Your task to perform on an android device: Go to Yahoo.com Image 0: 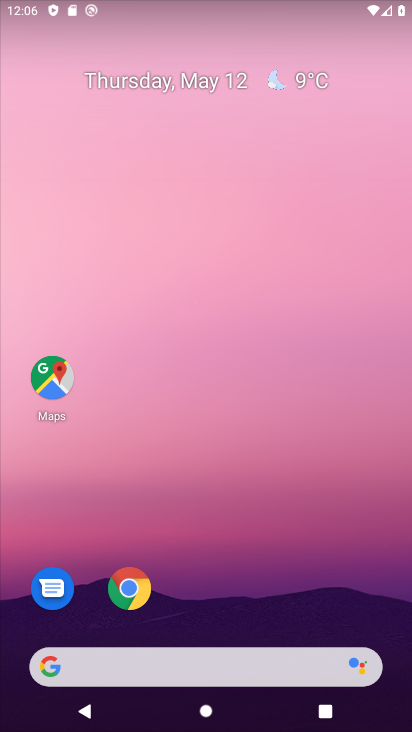
Step 0: drag from (268, 665) to (179, 8)
Your task to perform on an android device: Go to Yahoo.com Image 1: 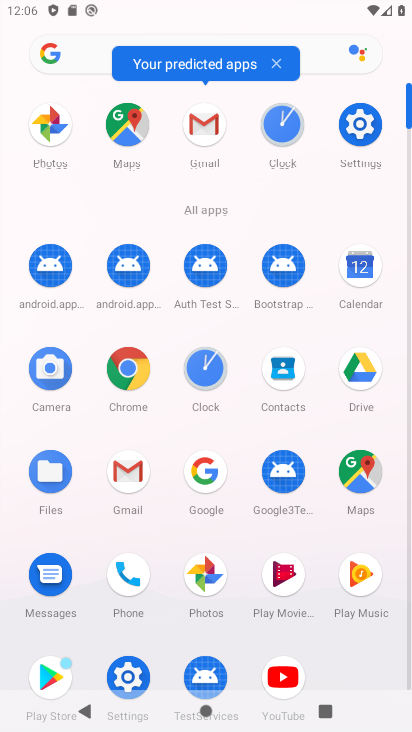
Step 1: click (123, 123)
Your task to perform on an android device: Go to Yahoo.com Image 2: 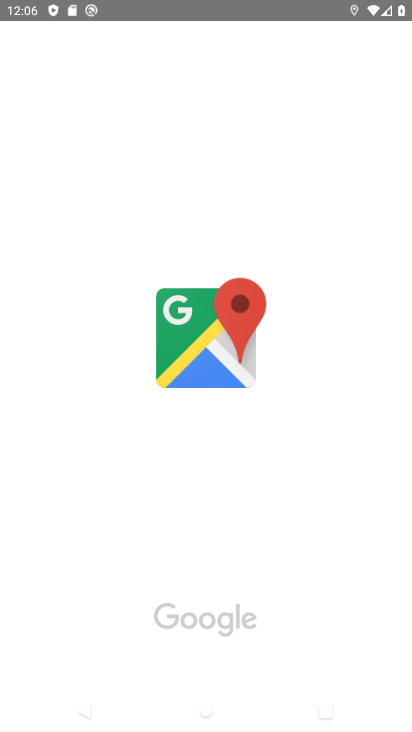
Step 2: press back button
Your task to perform on an android device: Go to Yahoo.com Image 3: 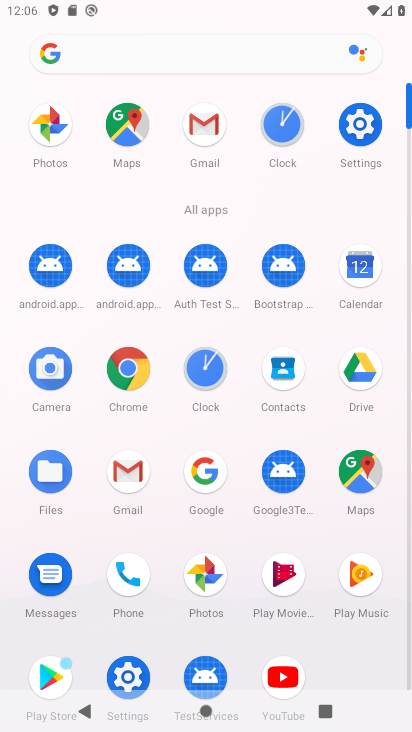
Step 3: click (135, 371)
Your task to perform on an android device: Go to Yahoo.com Image 4: 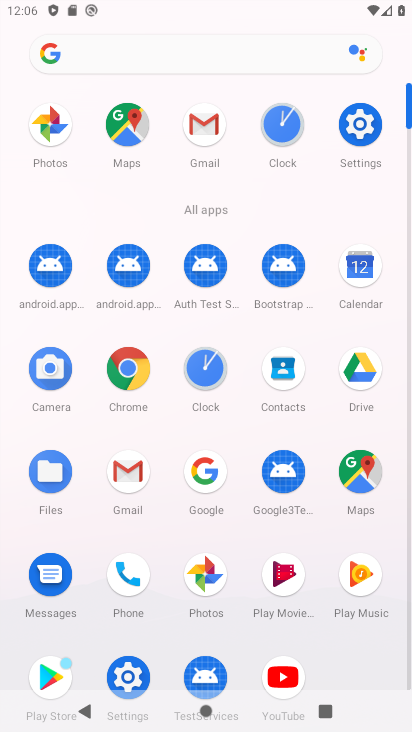
Step 4: click (135, 371)
Your task to perform on an android device: Go to Yahoo.com Image 5: 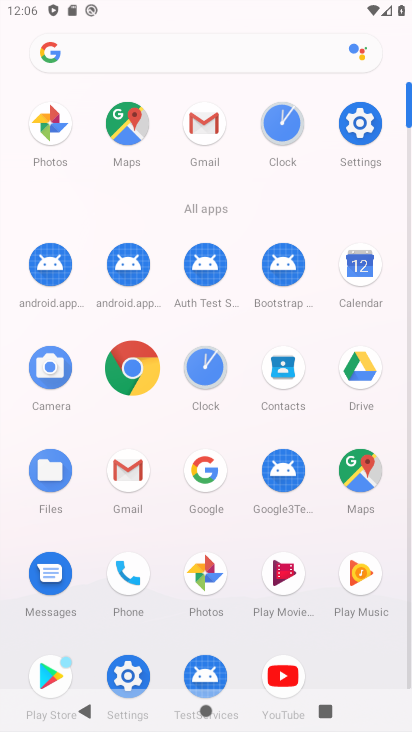
Step 5: click (134, 371)
Your task to perform on an android device: Go to Yahoo.com Image 6: 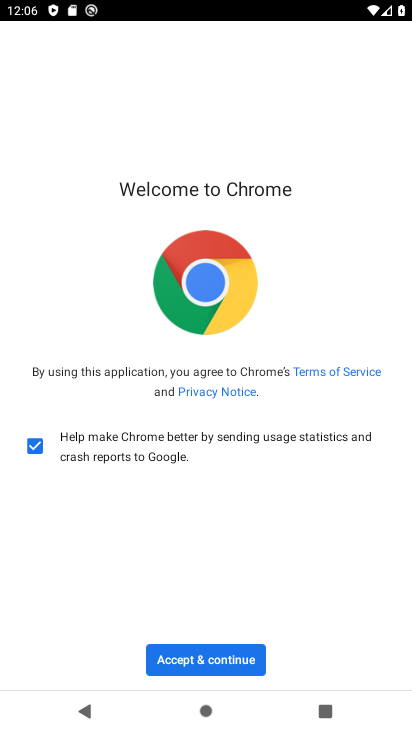
Step 6: click (202, 650)
Your task to perform on an android device: Go to Yahoo.com Image 7: 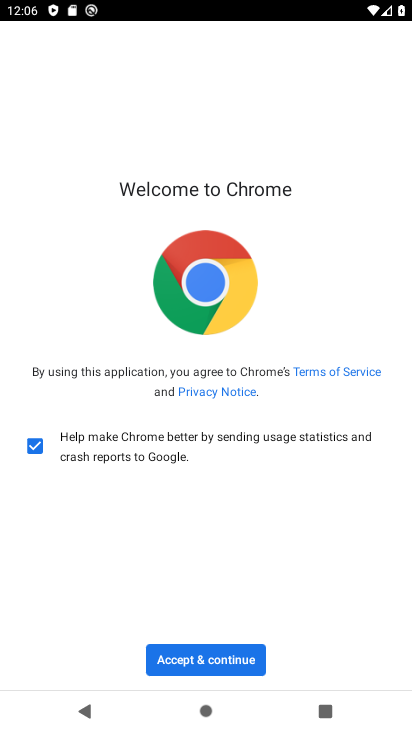
Step 7: click (206, 654)
Your task to perform on an android device: Go to Yahoo.com Image 8: 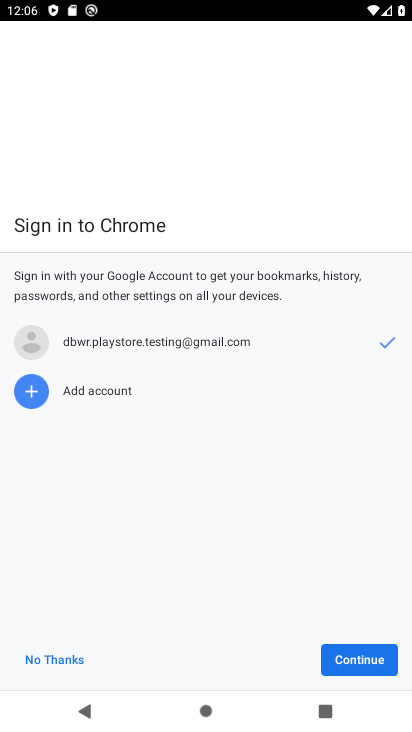
Step 8: click (206, 654)
Your task to perform on an android device: Go to Yahoo.com Image 9: 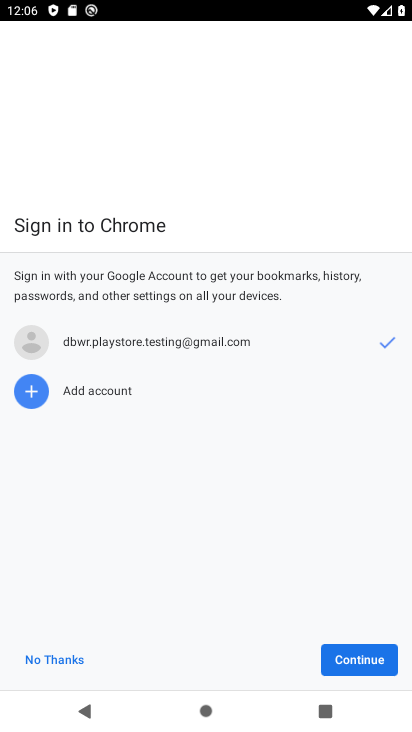
Step 9: click (205, 654)
Your task to perform on an android device: Go to Yahoo.com Image 10: 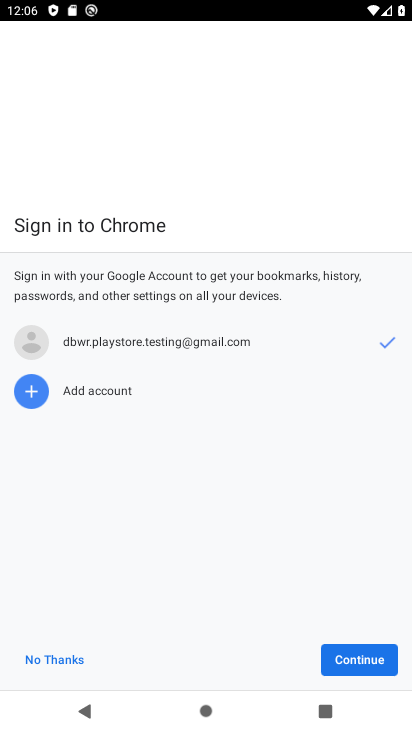
Step 10: click (370, 660)
Your task to perform on an android device: Go to Yahoo.com Image 11: 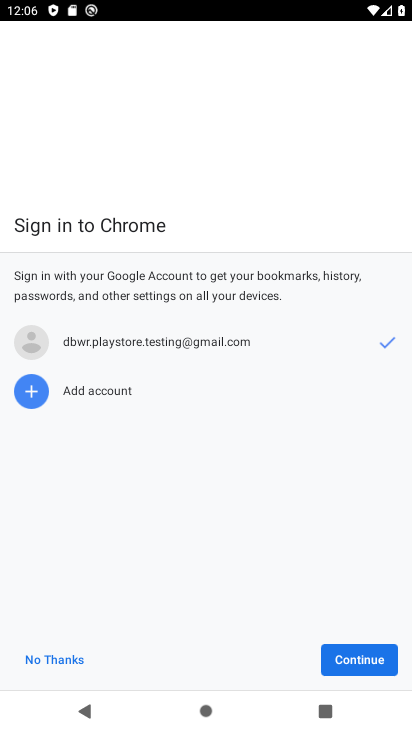
Step 11: click (370, 659)
Your task to perform on an android device: Go to Yahoo.com Image 12: 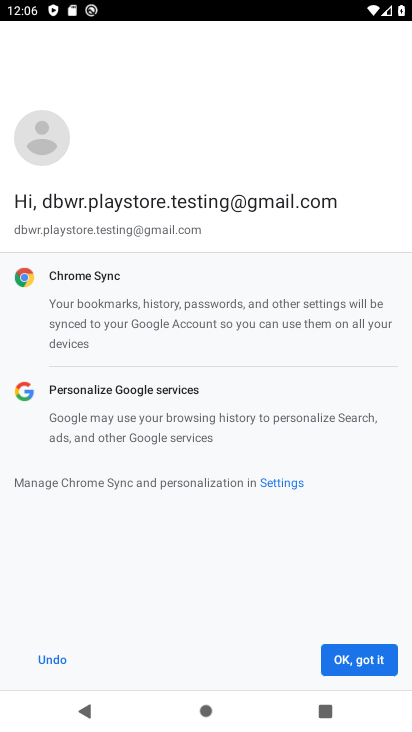
Step 12: click (370, 659)
Your task to perform on an android device: Go to Yahoo.com Image 13: 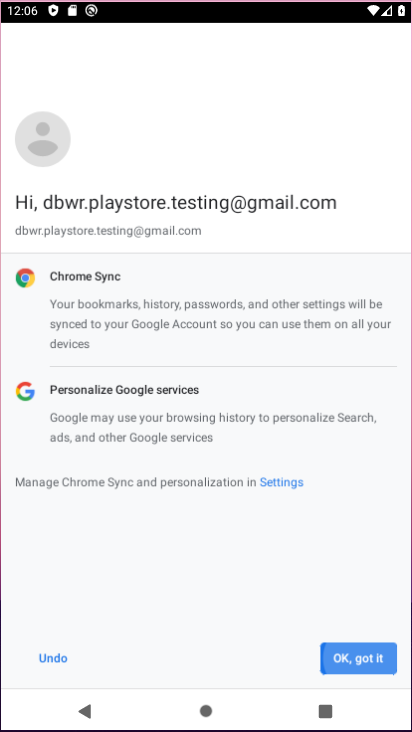
Step 13: click (370, 659)
Your task to perform on an android device: Go to Yahoo.com Image 14: 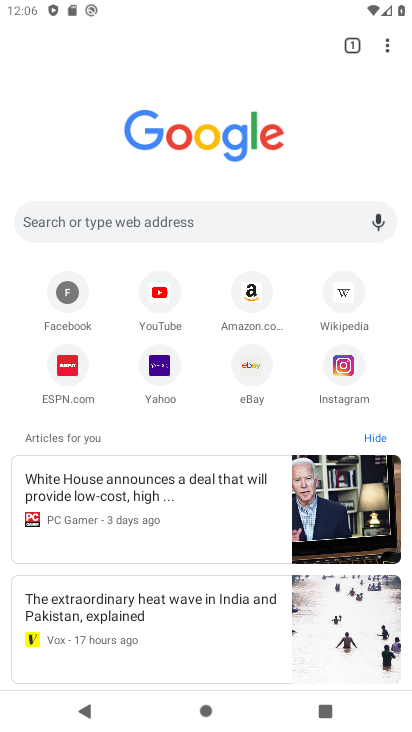
Step 14: click (159, 362)
Your task to perform on an android device: Go to Yahoo.com Image 15: 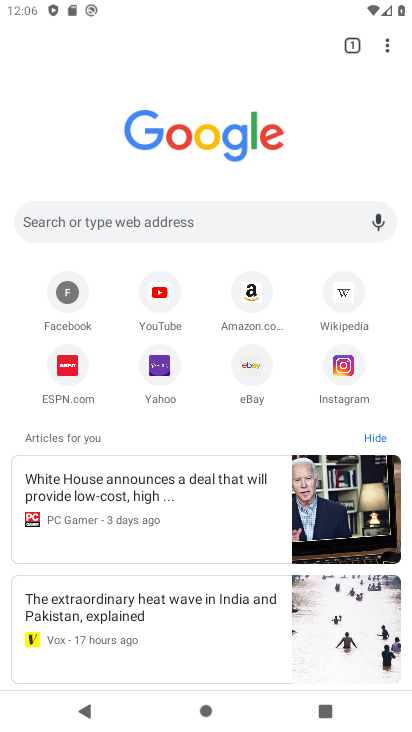
Step 15: click (159, 362)
Your task to perform on an android device: Go to Yahoo.com Image 16: 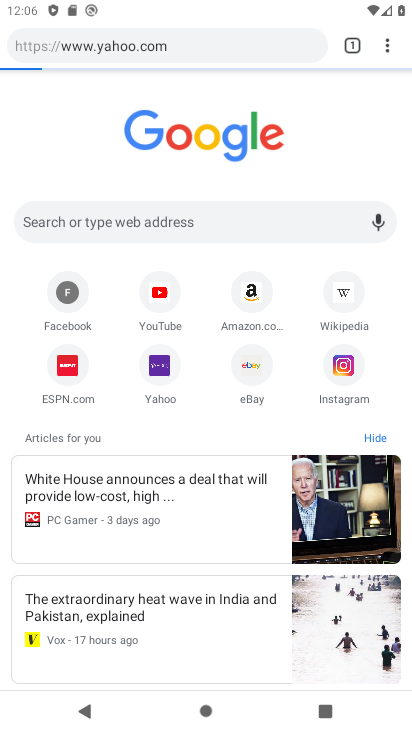
Step 16: click (159, 362)
Your task to perform on an android device: Go to Yahoo.com Image 17: 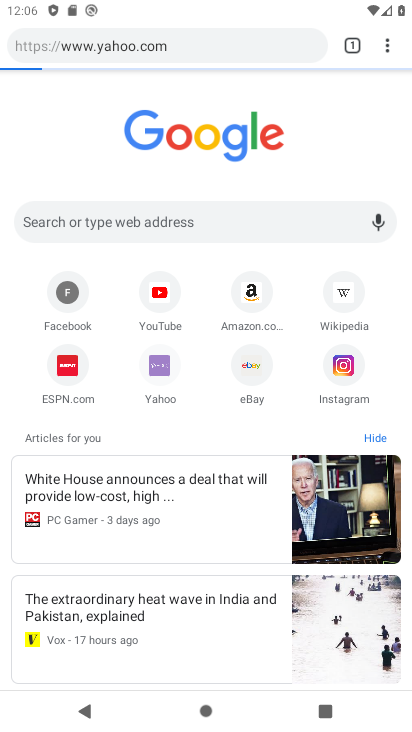
Step 17: click (159, 362)
Your task to perform on an android device: Go to Yahoo.com Image 18: 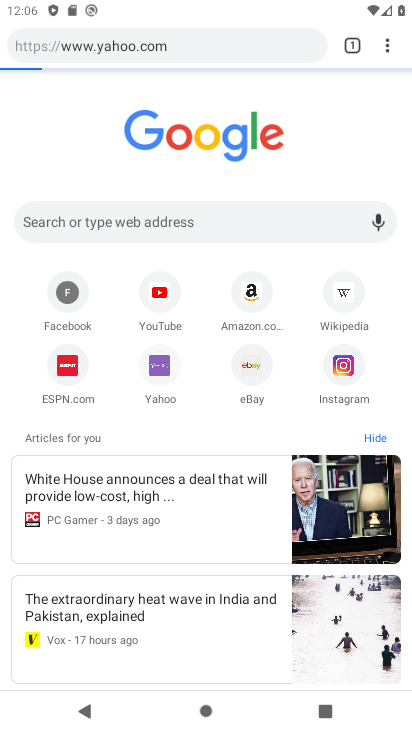
Step 18: click (159, 362)
Your task to perform on an android device: Go to Yahoo.com Image 19: 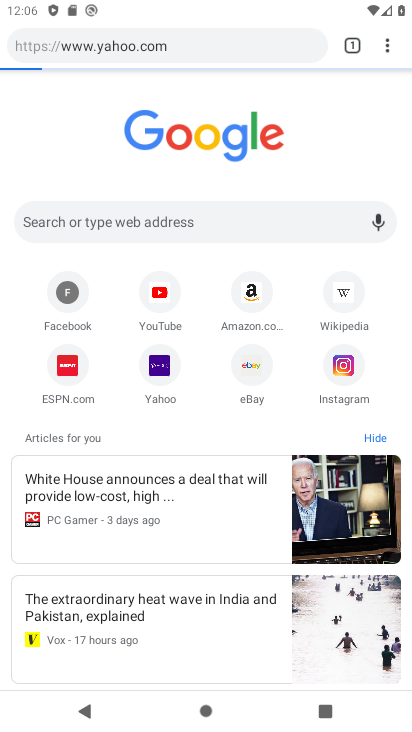
Step 19: click (159, 362)
Your task to perform on an android device: Go to Yahoo.com Image 20: 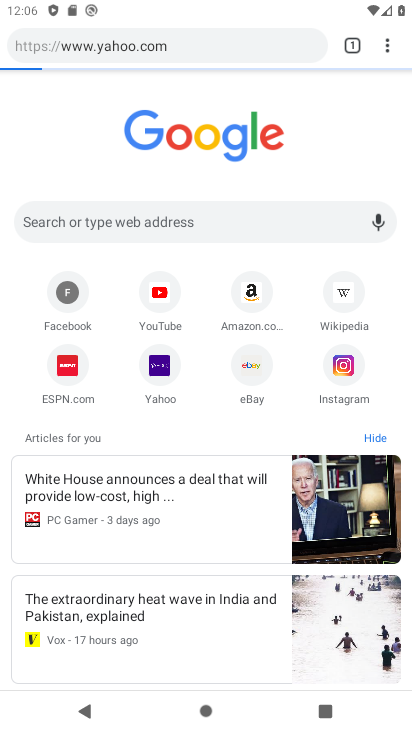
Step 20: click (159, 362)
Your task to perform on an android device: Go to Yahoo.com Image 21: 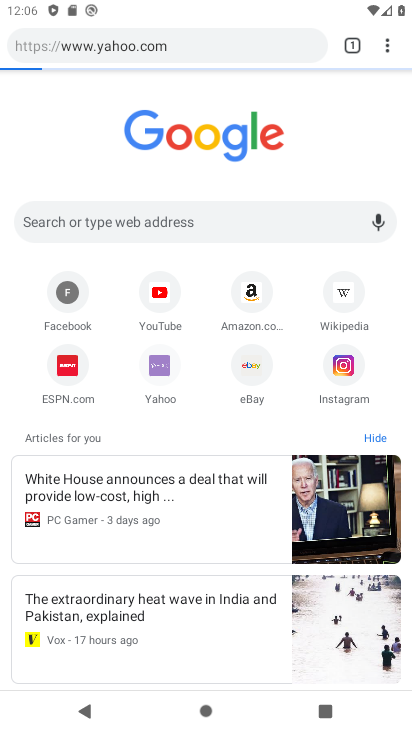
Step 21: click (159, 362)
Your task to perform on an android device: Go to Yahoo.com Image 22: 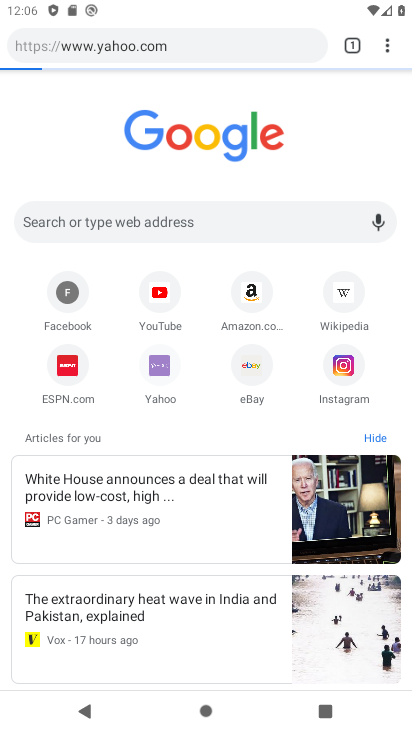
Step 22: click (159, 362)
Your task to perform on an android device: Go to Yahoo.com Image 23: 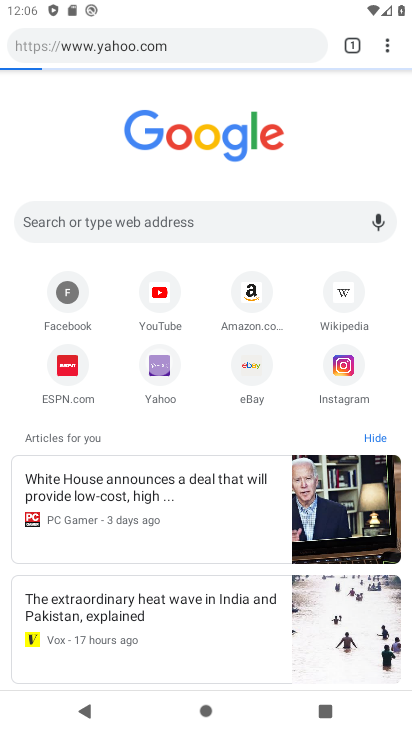
Step 23: click (159, 362)
Your task to perform on an android device: Go to Yahoo.com Image 24: 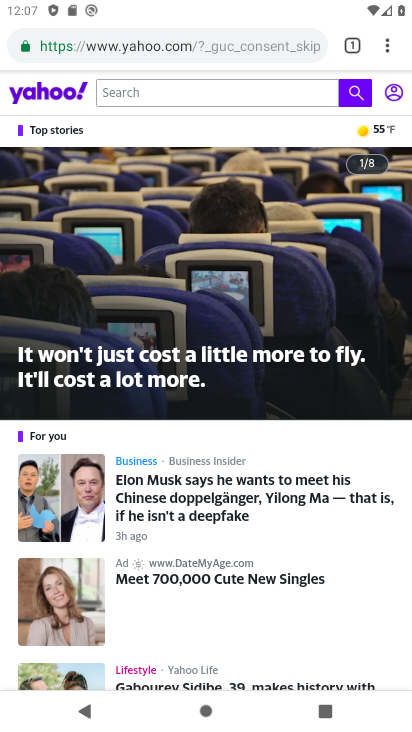
Step 24: task complete